Your task to perform on an android device: Open Google Chrome and click the shortcut for Amazon.com Image 0: 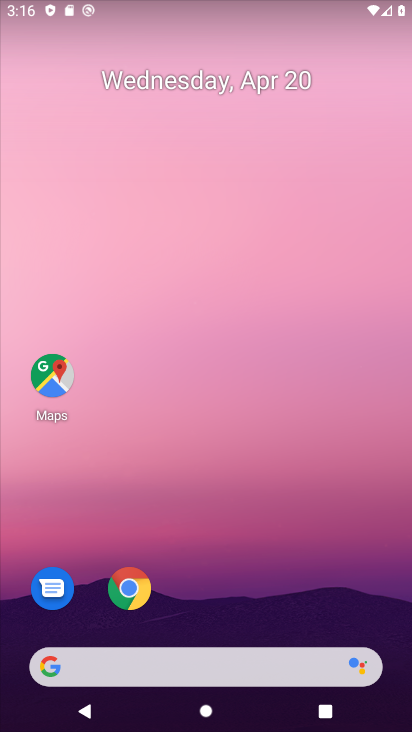
Step 0: click (124, 592)
Your task to perform on an android device: Open Google Chrome and click the shortcut for Amazon.com Image 1: 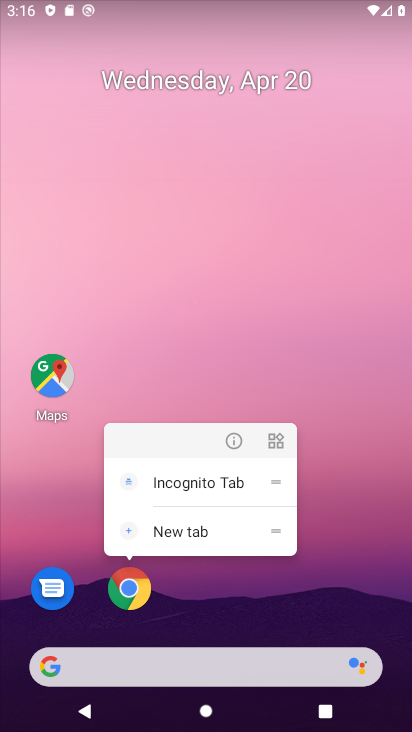
Step 1: click (130, 592)
Your task to perform on an android device: Open Google Chrome and click the shortcut for Amazon.com Image 2: 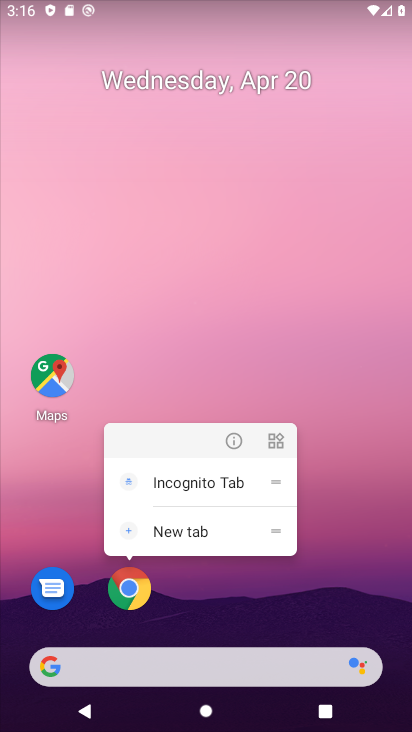
Step 2: click (132, 592)
Your task to perform on an android device: Open Google Chrome and click the shortcut for Amazon.com Image 3: 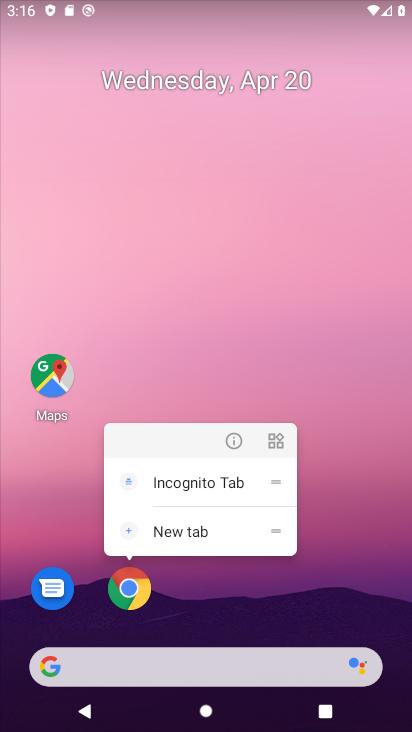
Step 3: click (132, 592)
Your task to perform on an android device: Open Google Chrome and click the shortcut for Amazon.com Image 4: 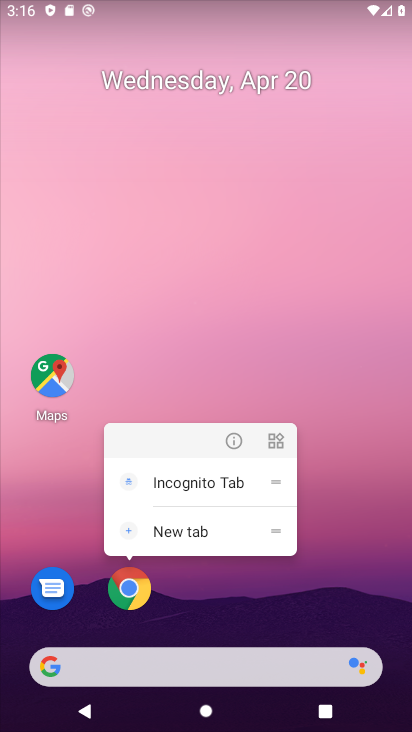
Step 4: click (117, 595)
Your task to perform on an android device: Open Google Chrome and click the shortcut for Amazon.com Image 5: 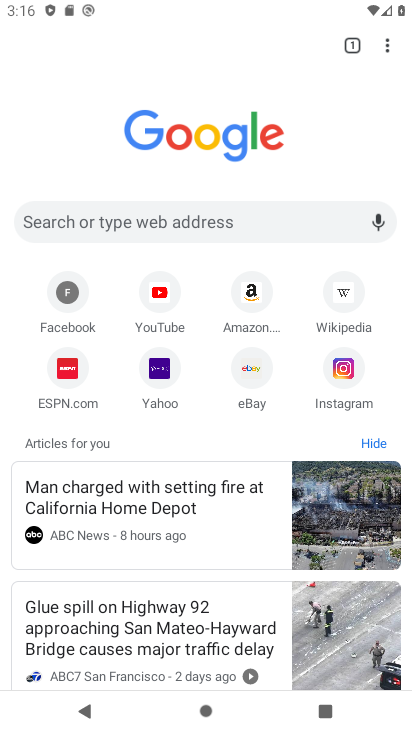
Step 5: click (238, 304)
Your task to perform on an android device: Open Google Chrome and click the shortcut for Amazon.com Image 6: 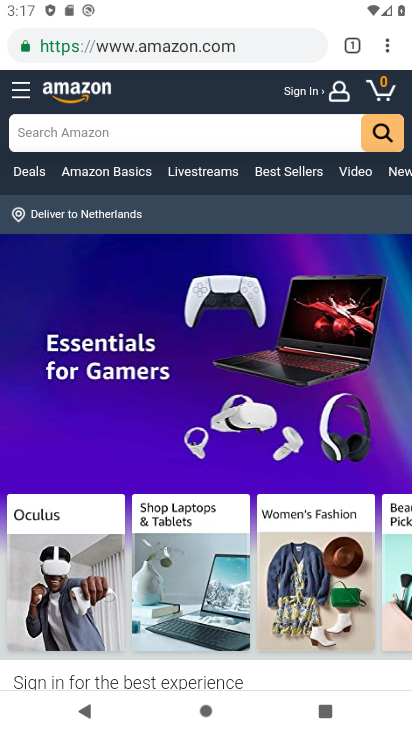
Step 6: task complete